Your task to perform on an android device: toggle javascript in the chrome app Image 0: 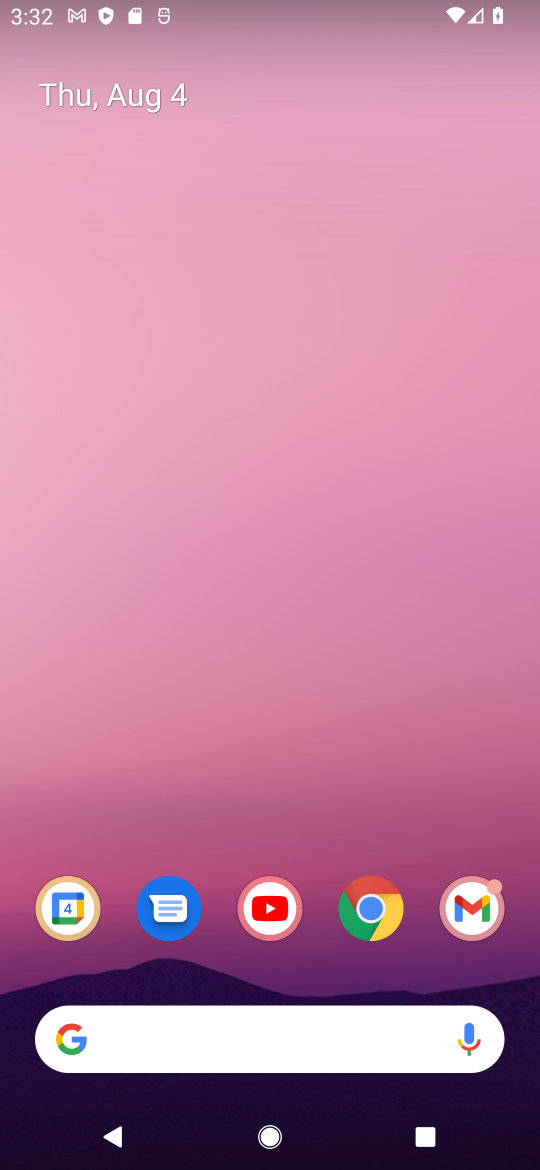
Step 0: click (370, 912)
Your task to perform on an android device: toggle javascript in the chrome app Image 1: 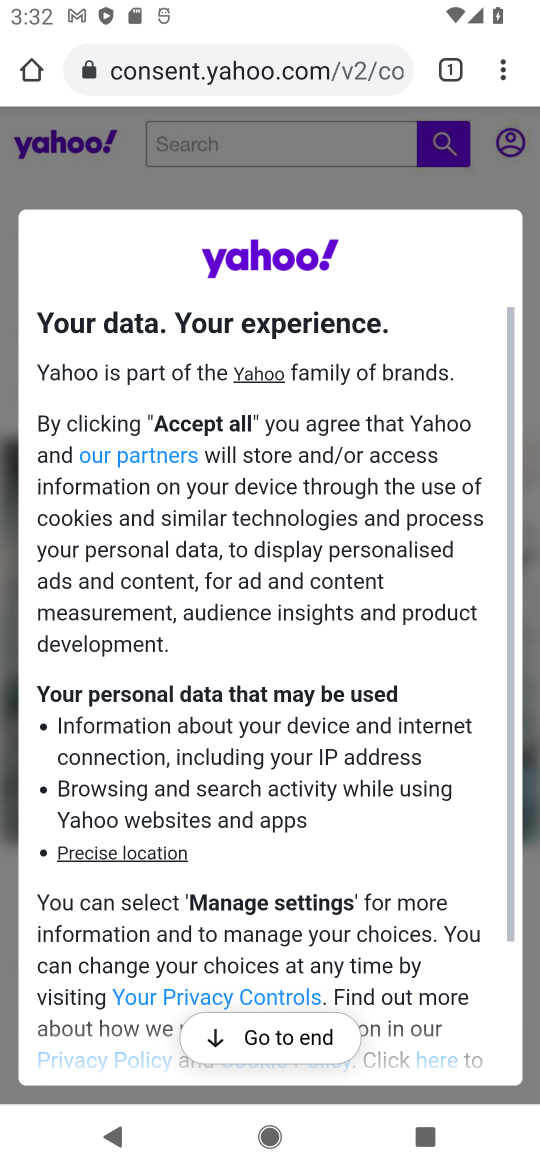
Step 1: click (485, 61)
Your task to perform on an android device: toggle javascript in the chrome app Image 2: 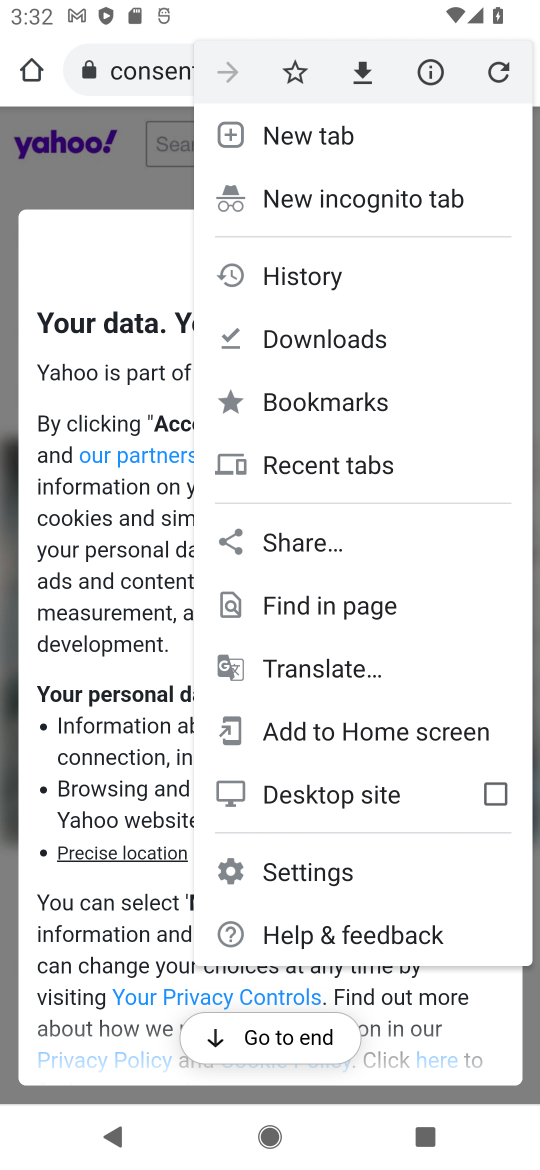
Step 2: click (314, 862)
Your task to perform on an android device: toggle javascript in the chrome app Image 3: 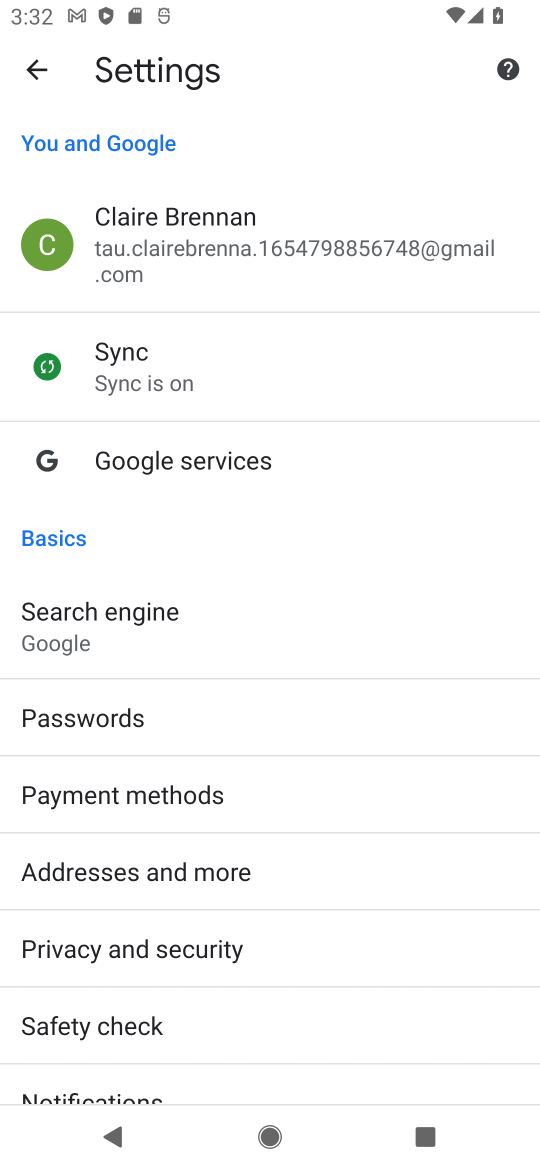
Step 3: drag from (116, 1091) to (116, 233)
Your task to perform on an android device: toggle javascript in the chrome app Image 4: 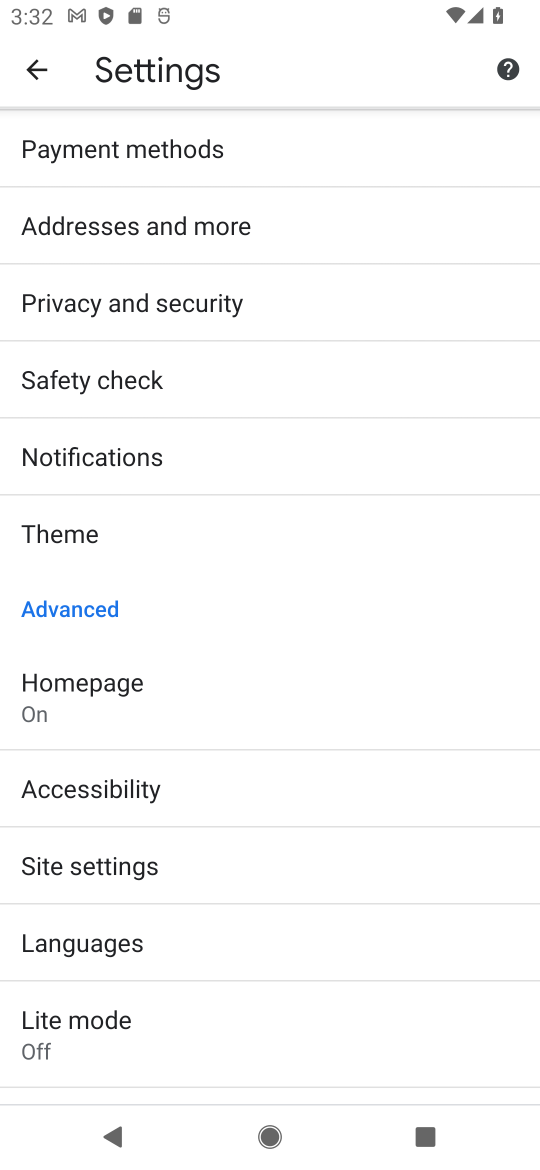
Step 4: click (106, 876)
Your task to perform on an android device: toggle javascript in the chrome app Image 5: 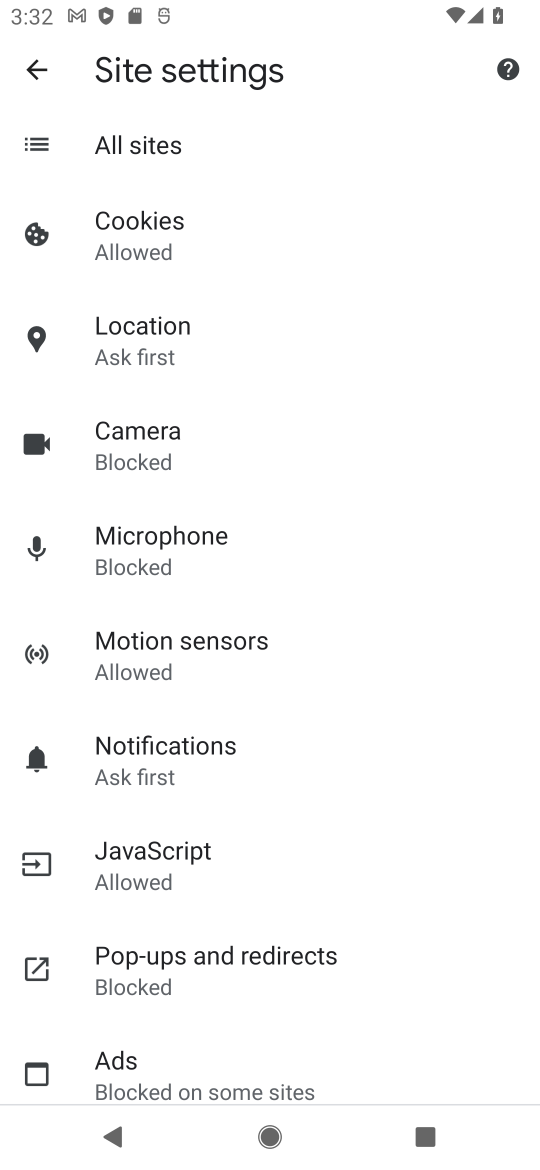
Step 5: click (233, 867)
Your task to perform on an android device: toggle javascript in the chrome app Image 6: 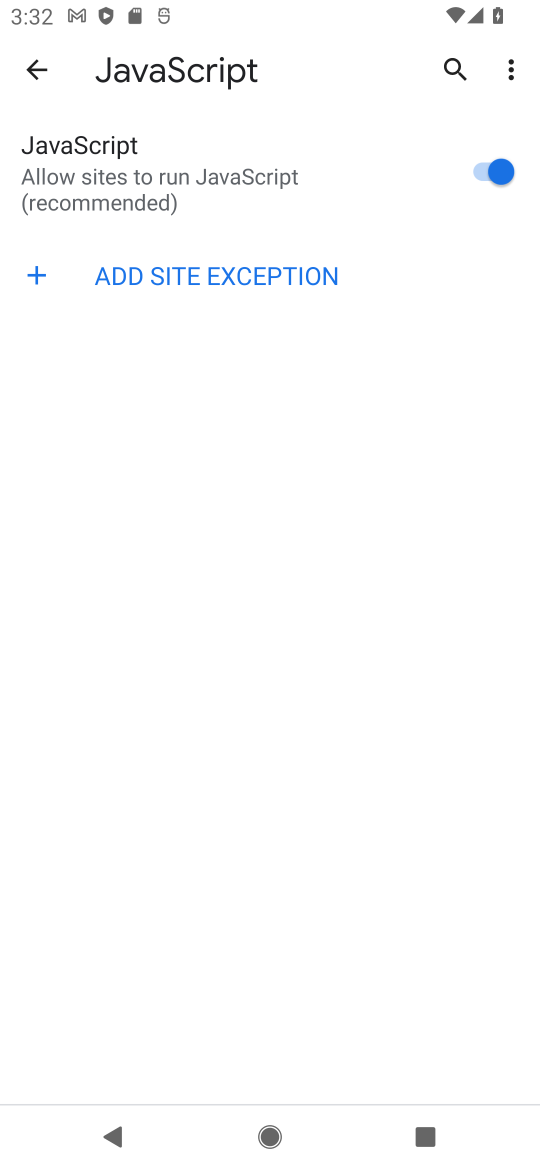
Step 6: click (465, 184)
Your task to perform on an android device: toggle javascript in the chrome app Image 7: 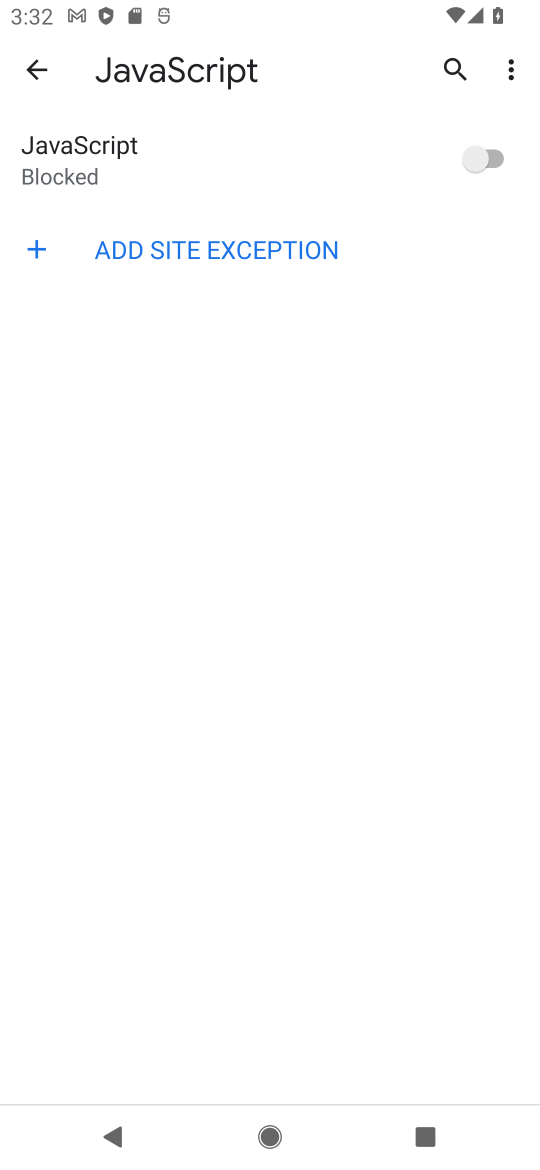
Step 7: task complete